Your task to perform on an android device: Go to location settings Image 0: 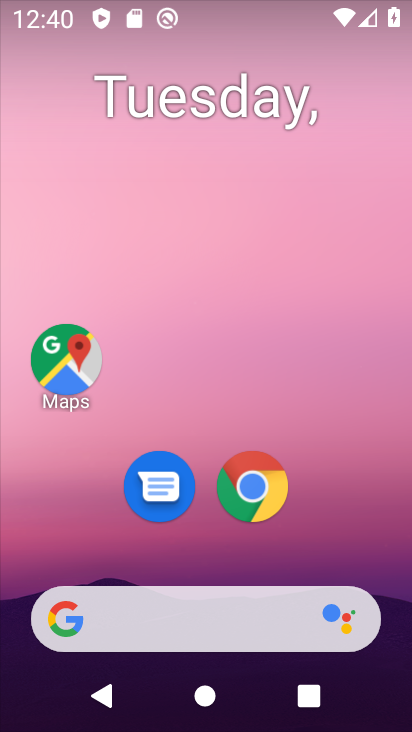
Step 0: drag from (386, 544) to (338, 173)
Your task to perform on an android device: Go to location settings Image 1: 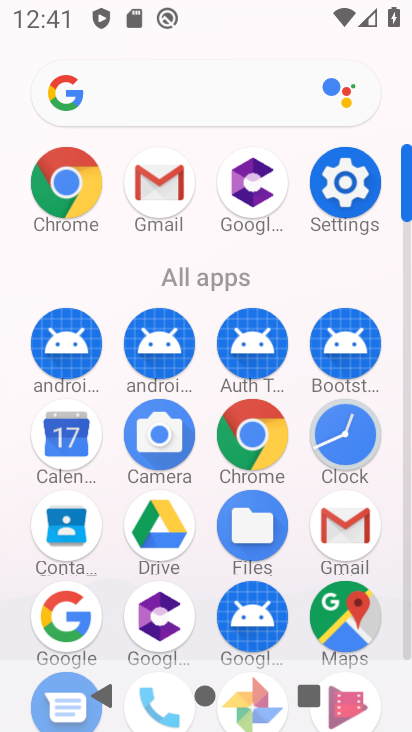
Step 1: click (338, 173)
Your task to perform on an android device: Go to location settings Image 2: 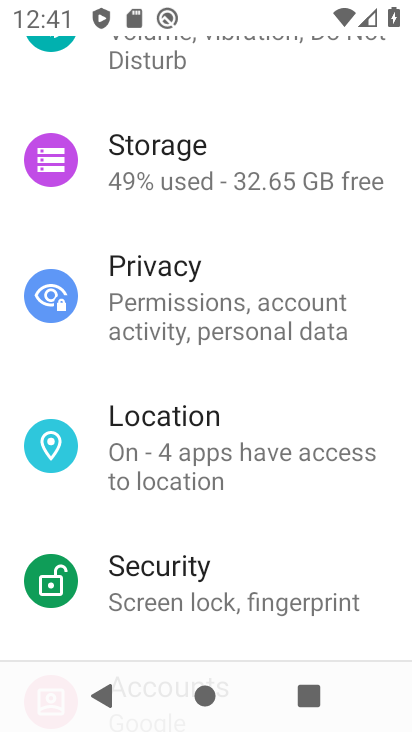
Step 2: click (312, 451)
Your task to perform on an android device: Go to location settings Image 3: 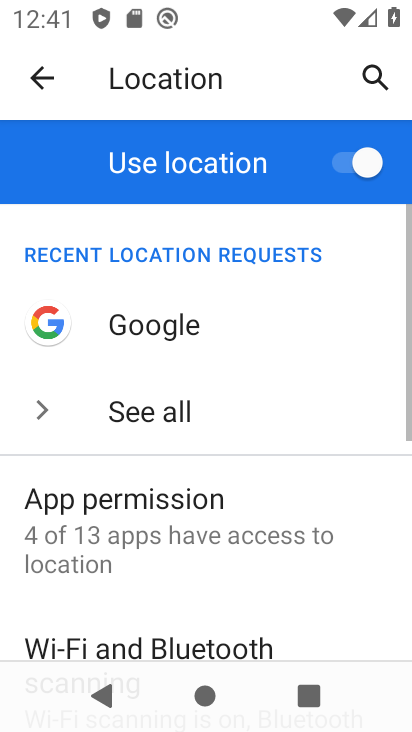
Step 3: drag from (334, 595) to (301, 329)
Your task to perform on an android device: Go to location settings Image 4: 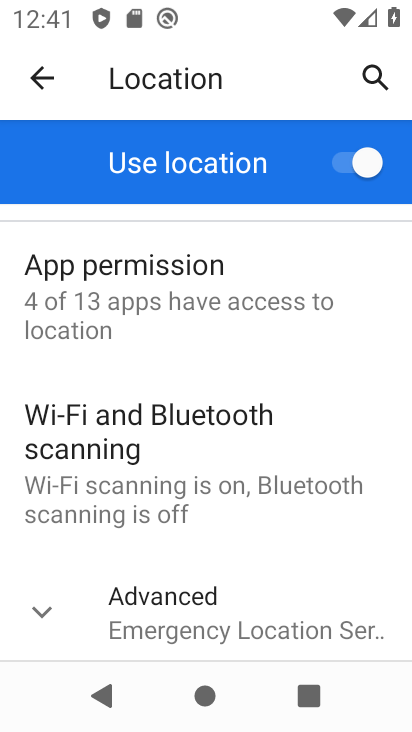
Step 4: click (322, 612)
Your task to perform on an android device: Go to location settings Image 5: 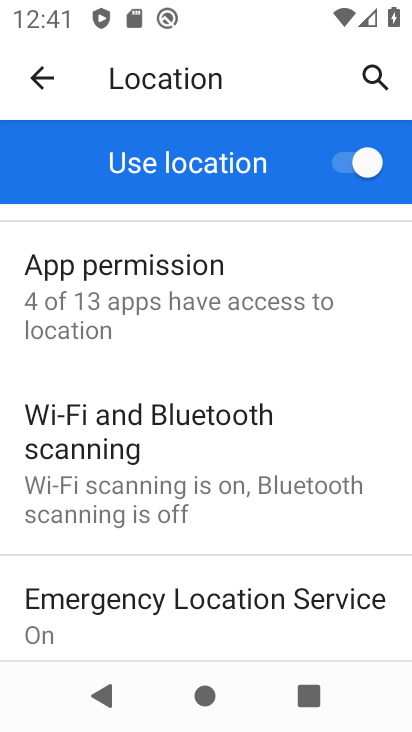
Step 5: task complete